Your task to perform on an android device: Toggle the flashlight Image 0: 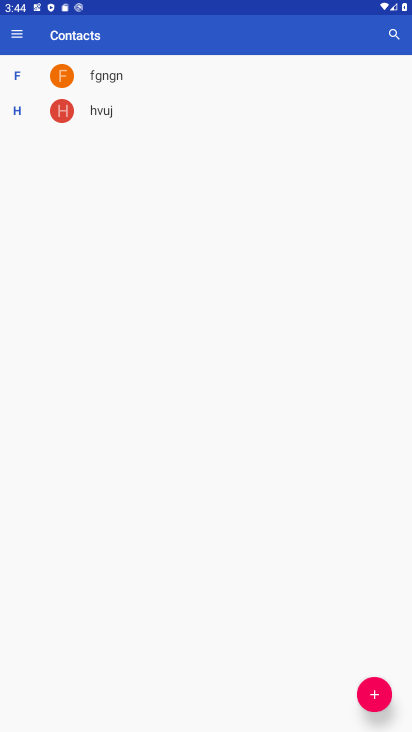
Step 0: press home button
Your task to perform on an android device: Toggle the flashlight Image 1: 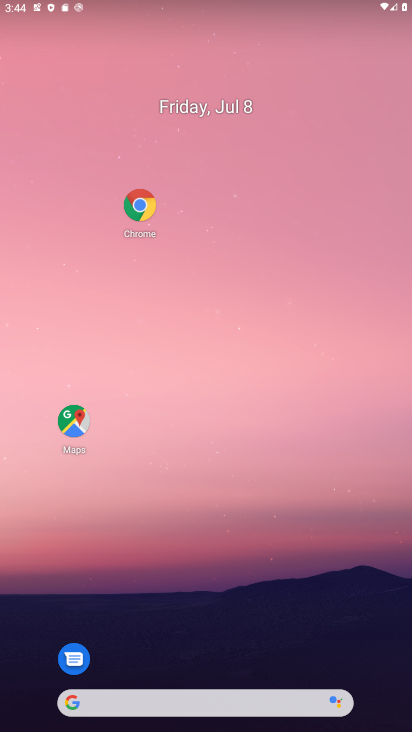
Step 1: drag from (240, 666) to (240, 260)
Your task to perform on an android device: Toggle the flashlight Image 2: 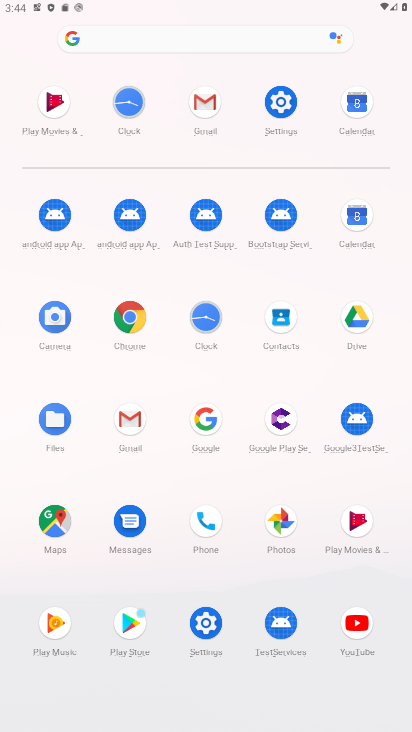
Step 2: click (294, 110)
Your task to perform on an android device: Toggle the flashlight Image 3: 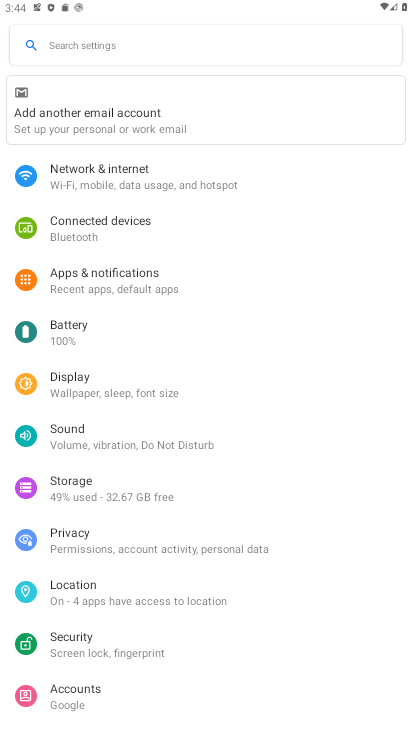
Step 3: task complete